Your task to perform on an android device: toggle location history Image 0: 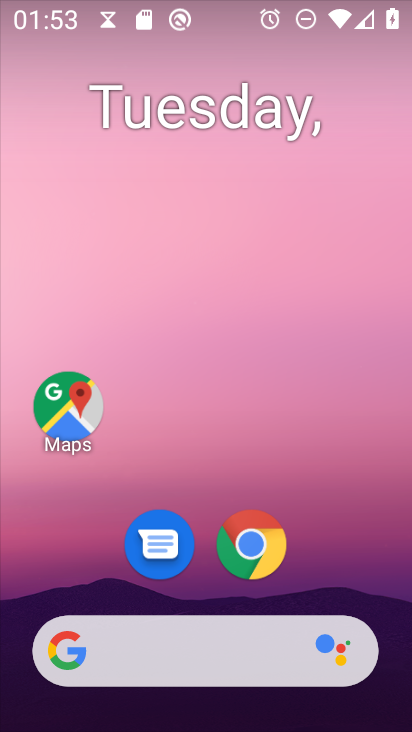
Step 0: drag from (321, 581) to (310, 0)
Your task to perform on an android device: toggle location history Image 1: 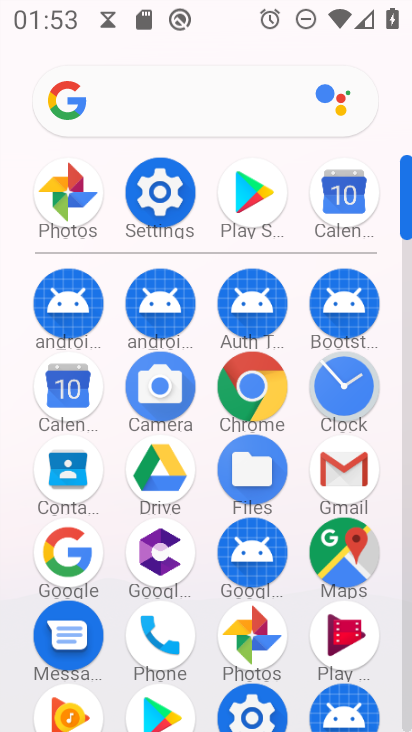
Step 1: click (241, 719)
Your task to perform on an android device: toggle location history Image 2: 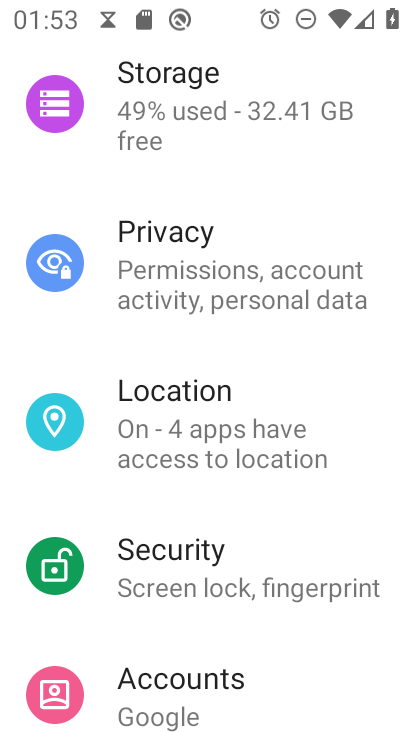
Step 2: click (214, 454)
Your task to perform on an android device: toggle location history Image 3: 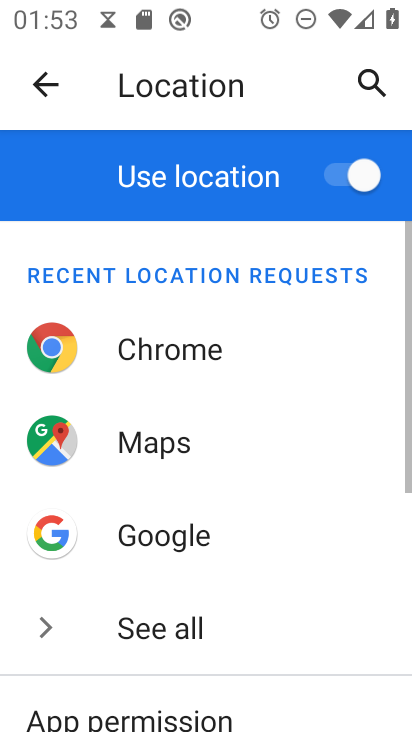
Step 3: drag from (194, 694) to (343, 54)
Your task to perform on an android device: toggle location history Image 4: 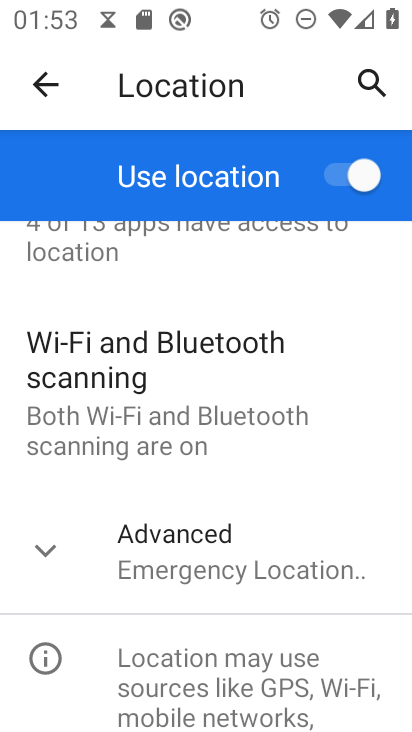
Step 4: click (226, 535)
Your task to perform on an android device: toggle location history Image 5: 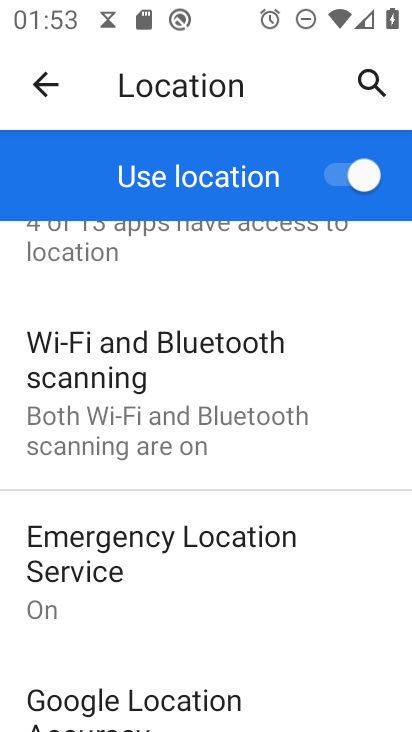
Step 5: drag from (218, 694) to (313, 207)
Your task to perform on an android device: toggle location history Image 6: 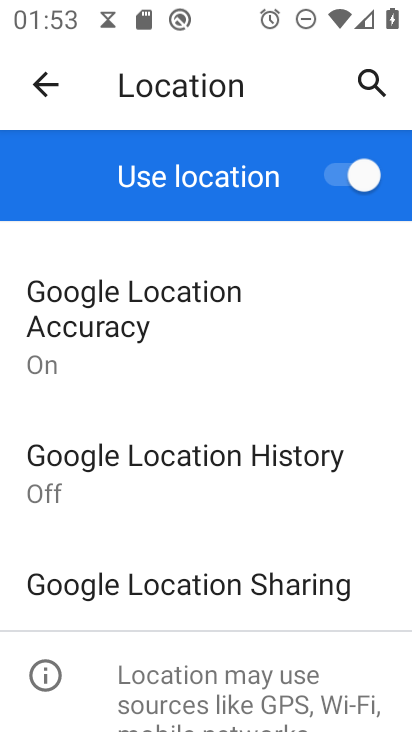
Step 6: click (189, 471)
Your task to perform on an android device: toggle location history Image 7: 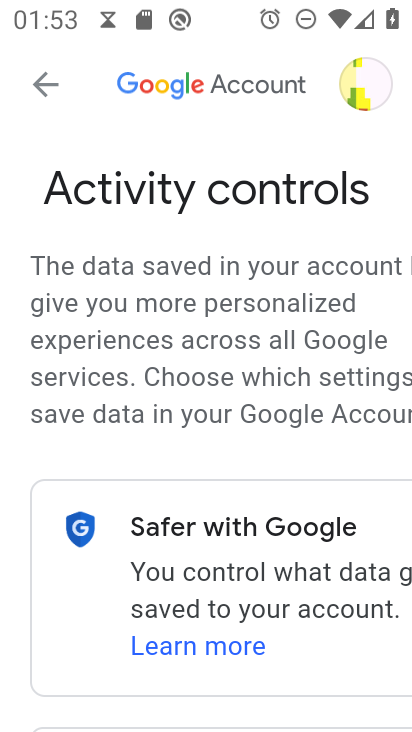
Step 7: drag from (210, 545) to (287, 87)
Your task to perform on an android device: toggle location history Image 8: 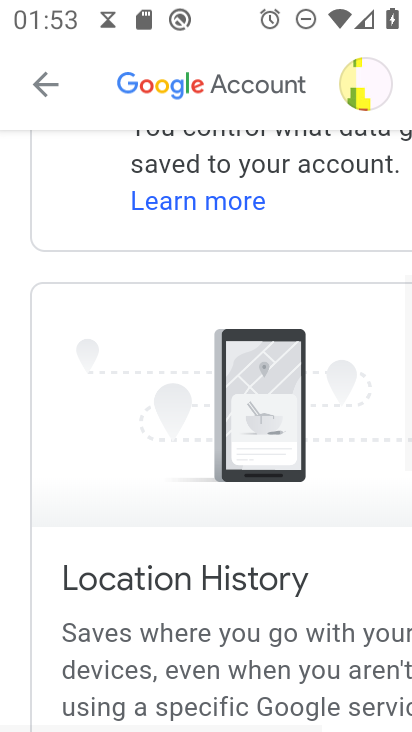
Step 8: drag from (167, 692) to (185, 291)
Your task to perform on an android device: toggle location history Image 9: 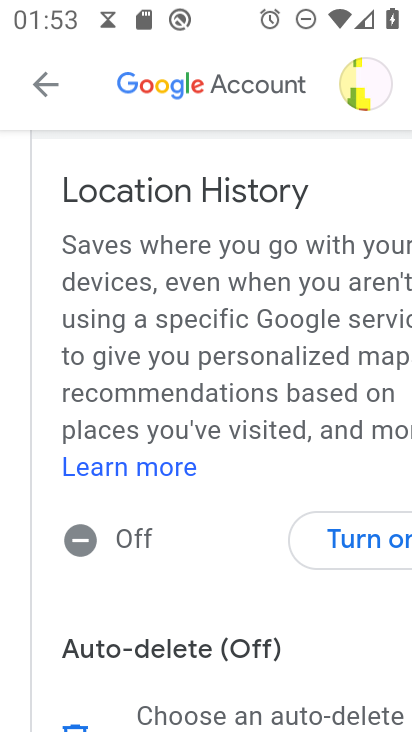
Step 9: click (309, 536)
Your task to perform on an android device: toggle location history Image 10: 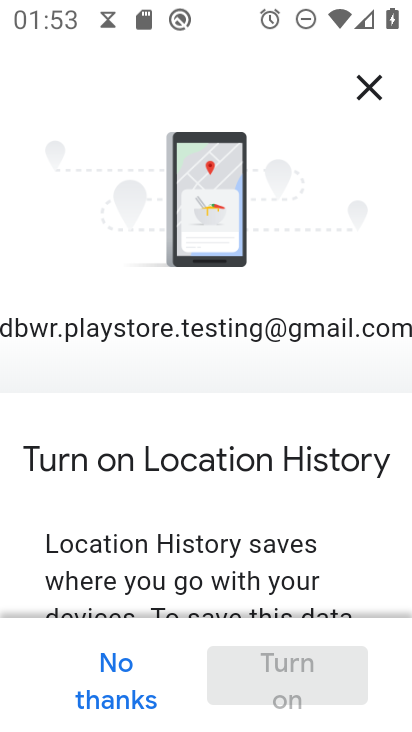
Step 10: drag from (293, 564) to (345, 88)
Your task to perform on an android device: toggle location history Image 11: 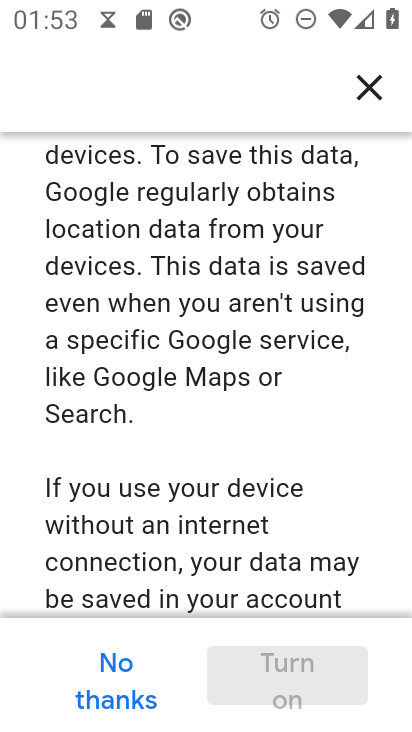
Step 11: drag from (344, 481) to (367, 73)
Your task to perform on an android device: toggle location history Image 12: 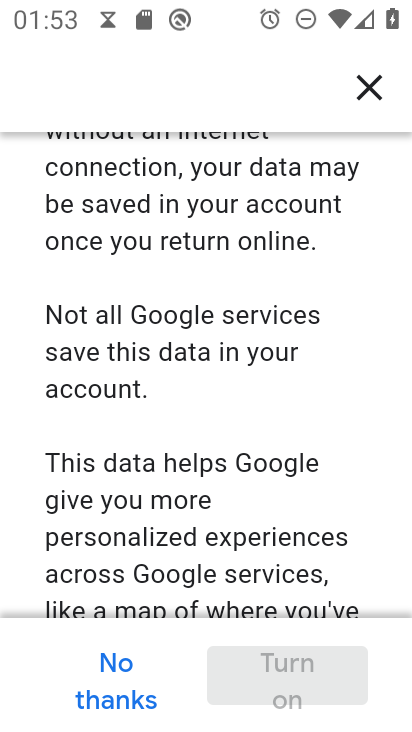
Step 12: drag from (293, 603) to (301, 50)
Your task to perform on an android device: toggle location history Image 13: 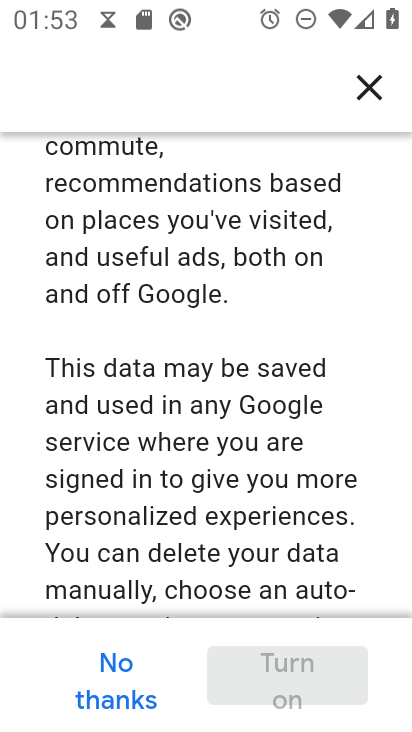
Step 13: drag from (289, 580) to (268, 79)
Your task to perform on an android device: toggle location history Image 14: 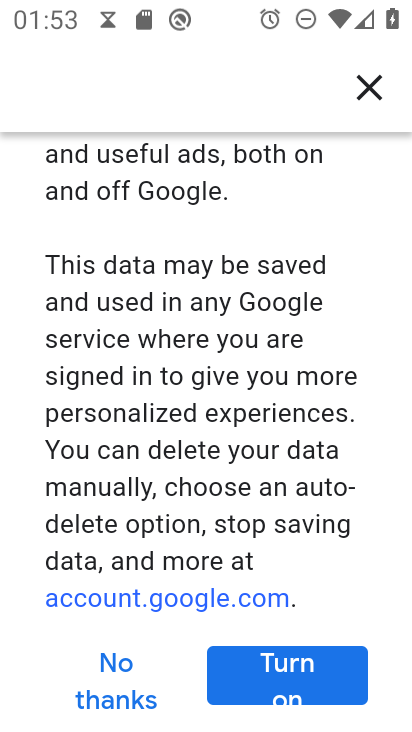
Step 14: click (272, 663)
Your task to perform on an android device: toggle location history Image 15: 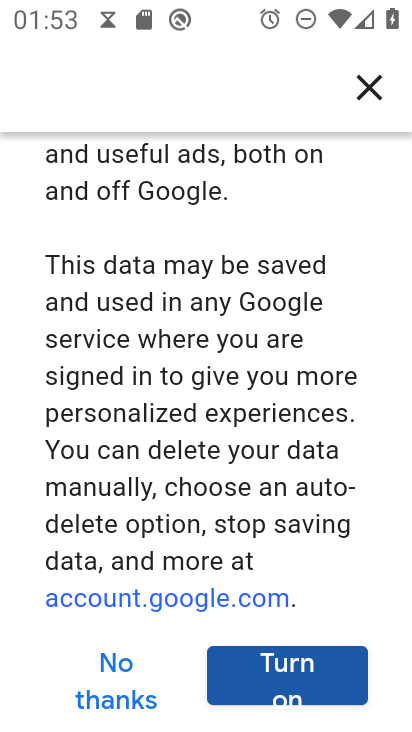
Step 15: click (273, 660)
Your task to perform on an android device: toggle location history Image 16: 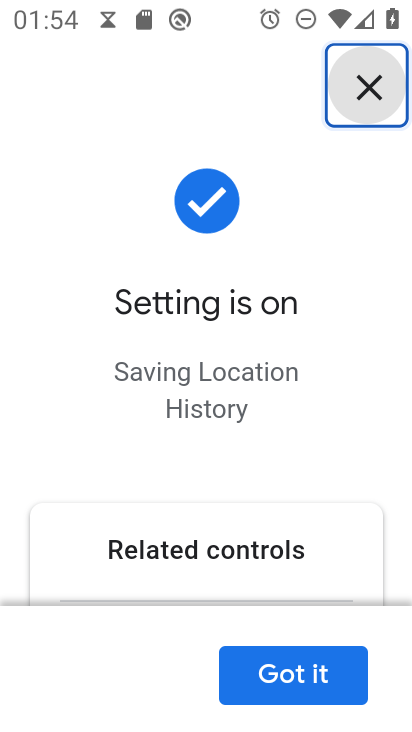
Step 16: task complete